Your task to perform on an android device: change the clock display to analog Image 0: 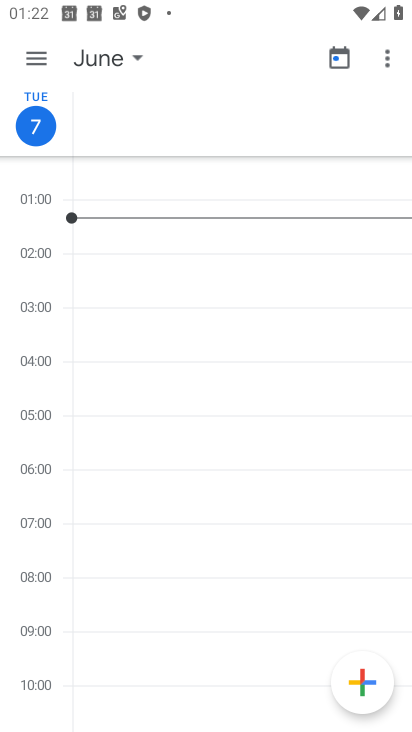
Step 0: press home button
Your task to perform on an android device: change the clock display to analog Image 1: 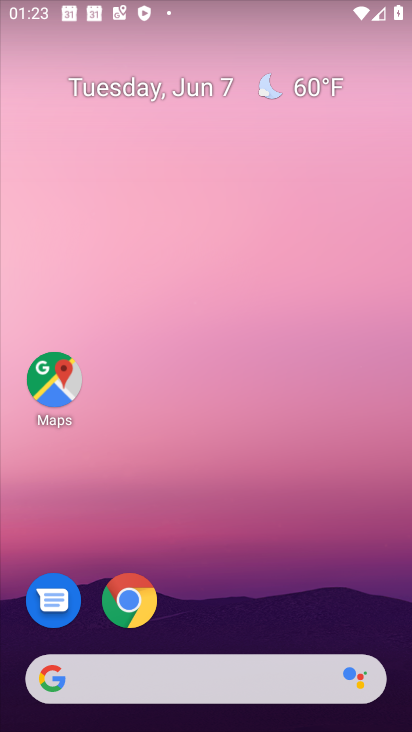
Step 1: drag from (213, 720) to (207, 163)
Your task to perform on an android device: change the clock display to analog Image 2: 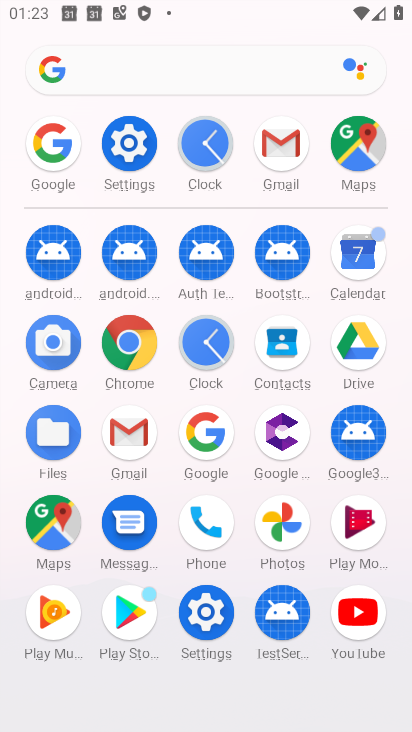
Step 2: click (202, 344)
Your task to perform on an android device: change the clock display to analog Image 3: 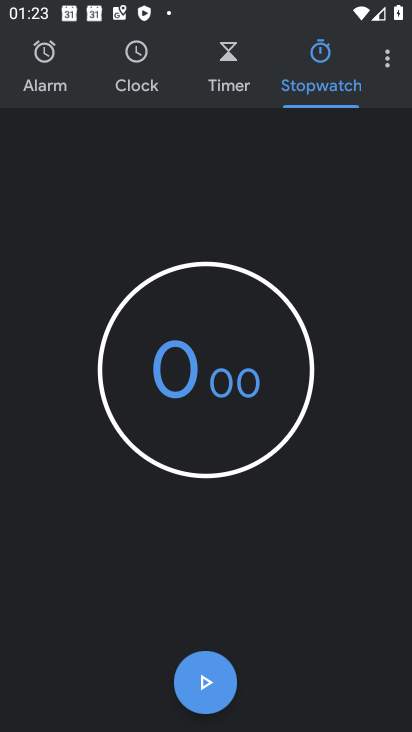
Step 3: click (386, 56)
Your task to perform on an android device: change the clock display to analog Image 4: 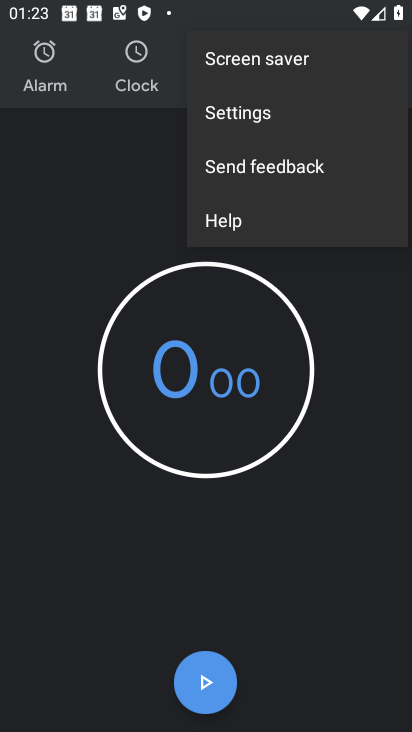
Step 4: click (236, 112)
Your task to perform on an android device: change the clock display to analog Image 5: 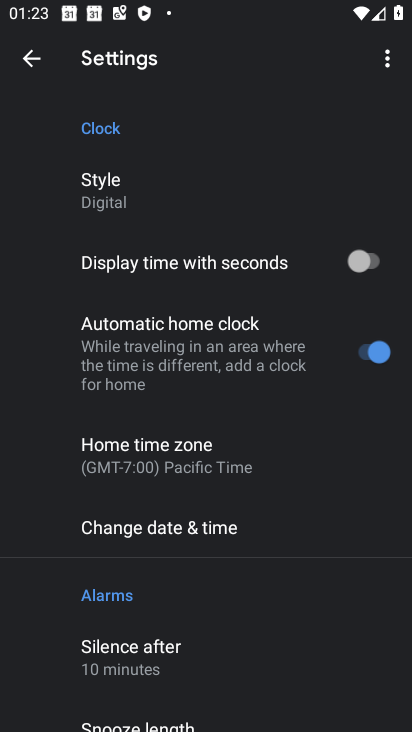
Step 5: click (122, 195)
Your task to perform on an android device: change the clock display to analog Image 6: 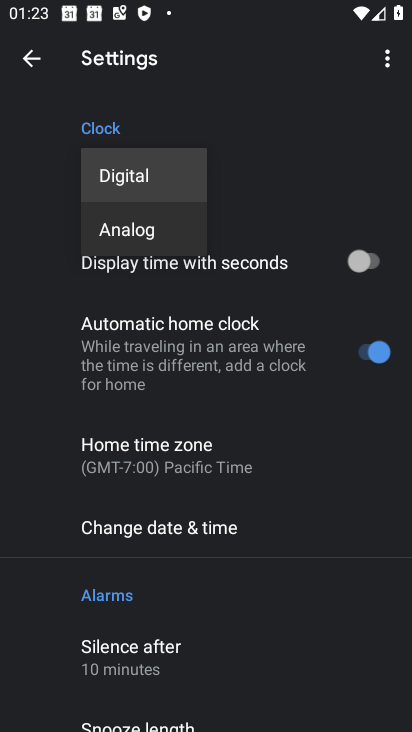
Step 6: click (136, 219)
Your task to perform on an android device: change the clock display to analog Image 7: 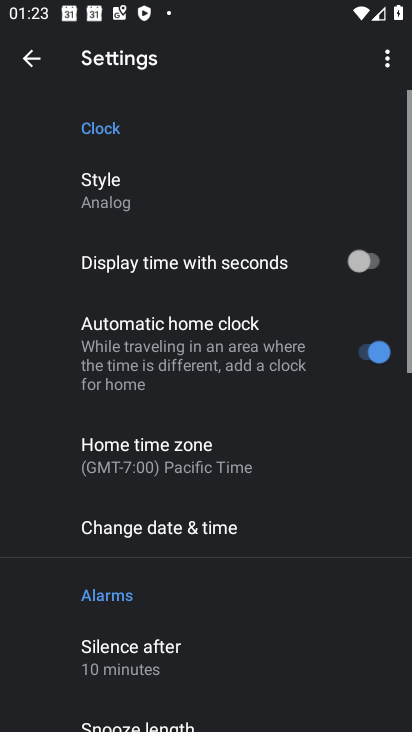
Step 7: task complete